Your task to perform on an android device: turn on data saver in the chrome app Image 0: 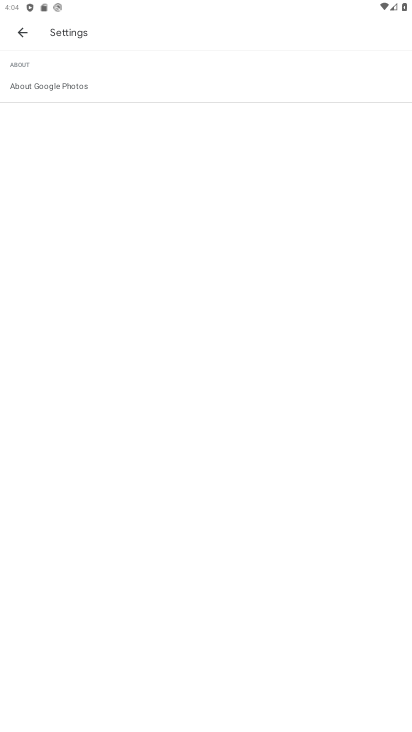
Step 0: press home button
Your task to perform on an android device: turn on data saver in the chrome app Image 1: 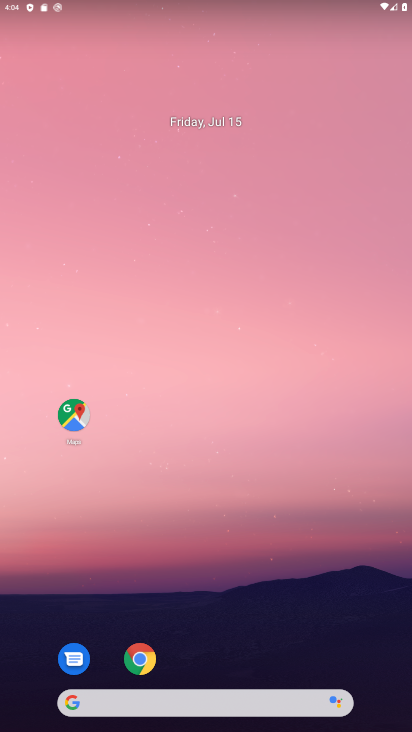
Step 1: click (143, 658)
Your task to perform on an android device: turn on data saver in the chrome app Image 2: 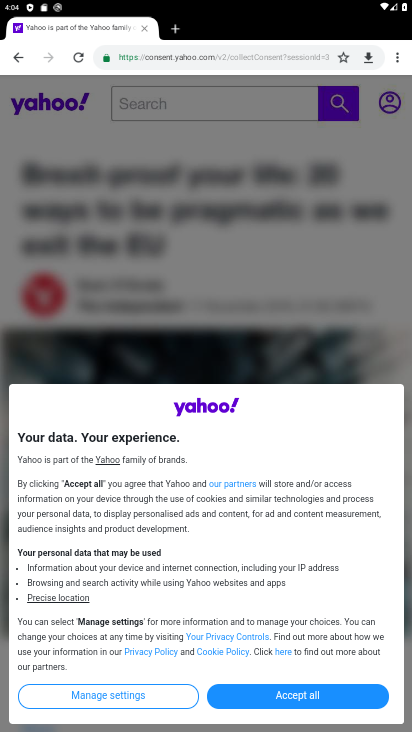
Step 2: click (406, 66)
Your task to perform on an android device: turn on data saver in the chrome app Image 3: 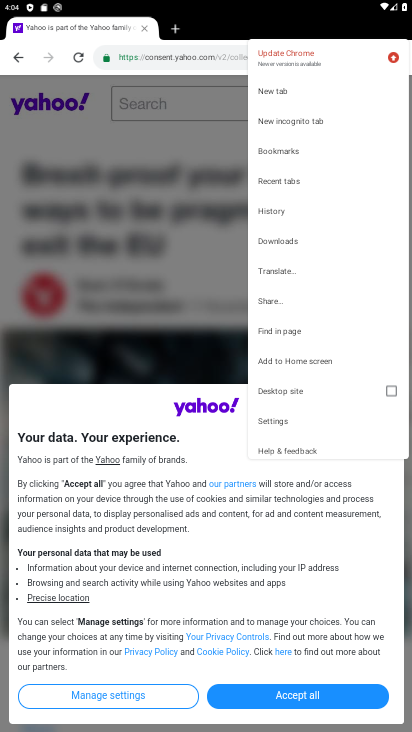
Step 3: click (295, 418)
Your task to perform on an android device: turn on data saver in the chrome app Image 4: 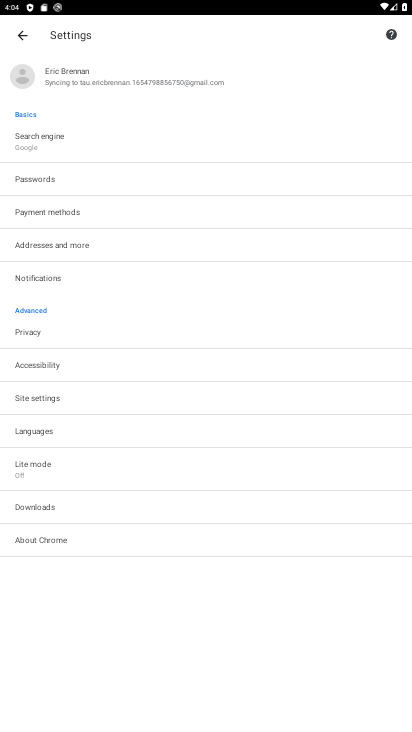
Step 4: click (155, 470)
Your task to perform on an android device: turn on data saver in the chrome app Image 5: 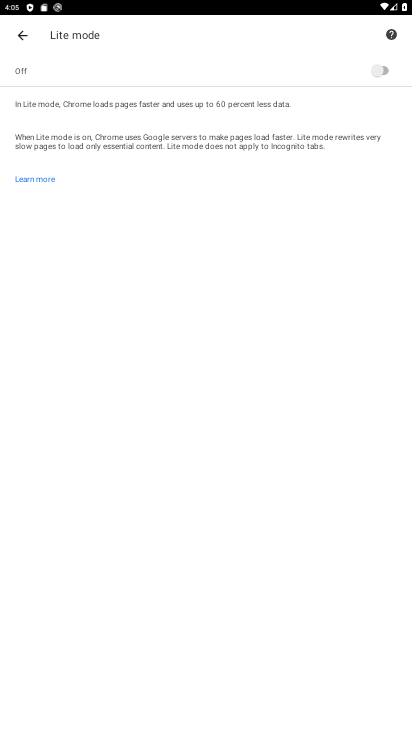
Step 5: click (385, 69)
Your task to perform on an android device: turn on data saver in the chrome app Image 6: 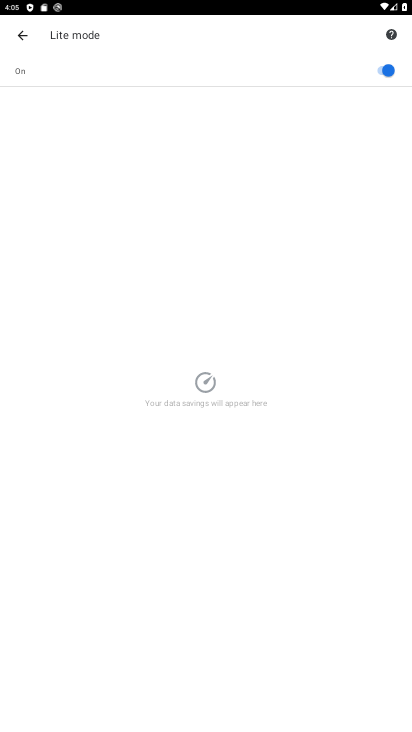
Step 6: task complete